Your task to perform on an android device: Check the weather Image 0: 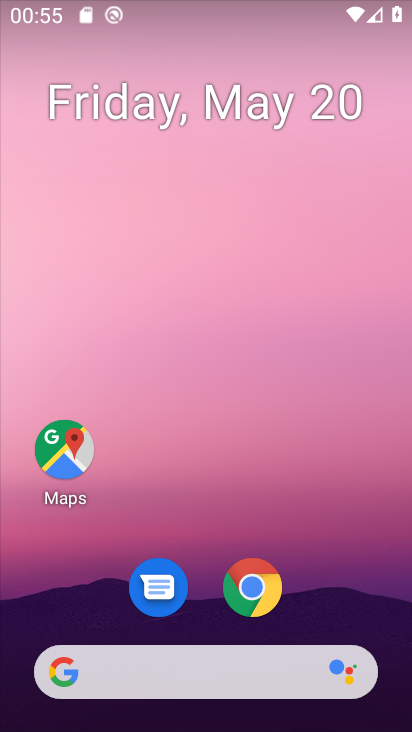
Step 0: click (200, 673)
Your task to perform on an android device: Check the weather Image 1: 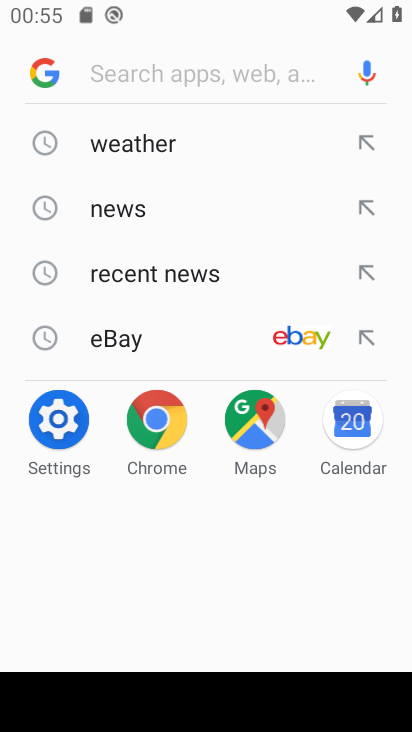
Step 1: click (154, 142)
Your task to perform on an android device: Check the weather Image 2: 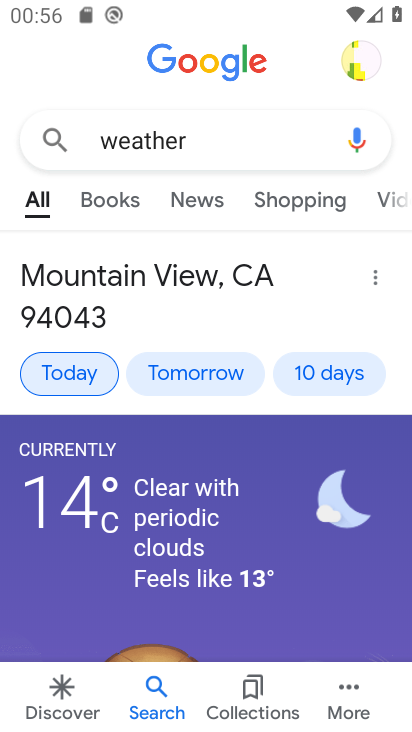
Step 2: task complete